Your task to perform on an android device: Go to Android settings Image 0: 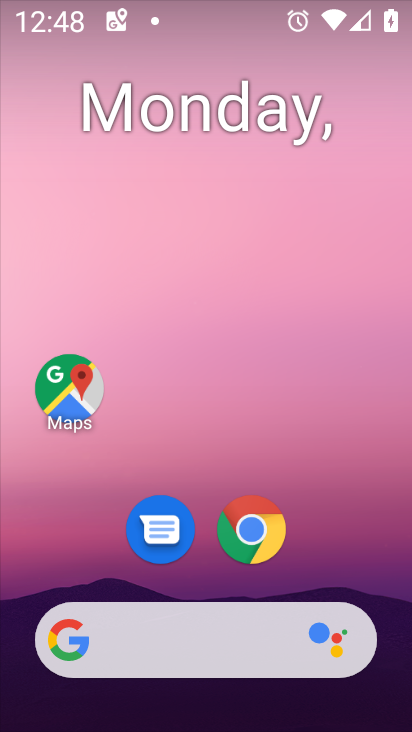
Step 0: click (198, 160)
Your task to perform on an android device: Go to Android settings Image 1: 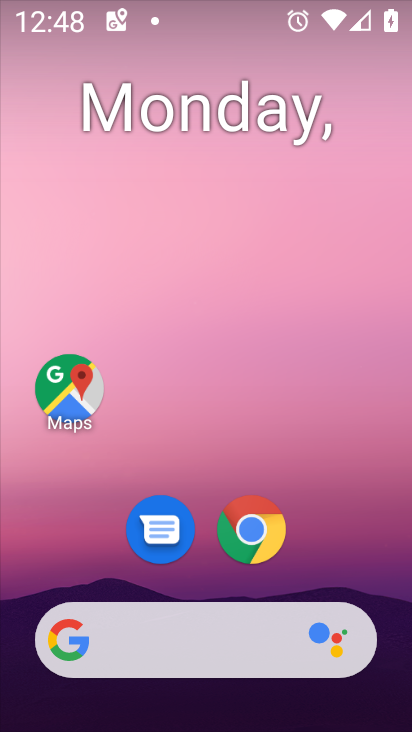
Step 1: drag from (223, 643) to (235, 58)
Your task to perform on an android device: Go to Android settings Image 2: 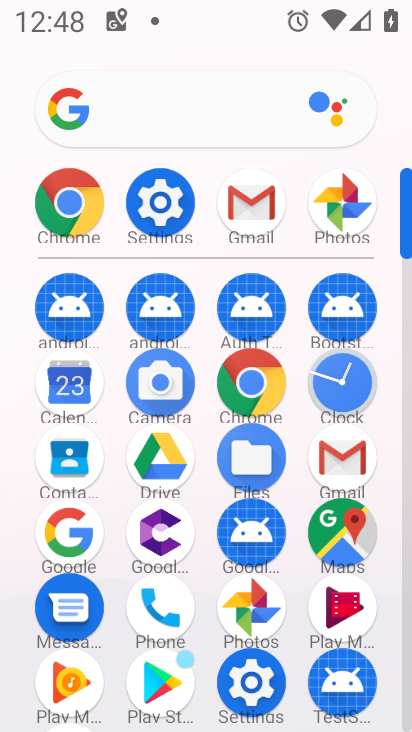
Step 2: click (167, 227)
Your task to perform on an android device: Go to Android settings Image 3: 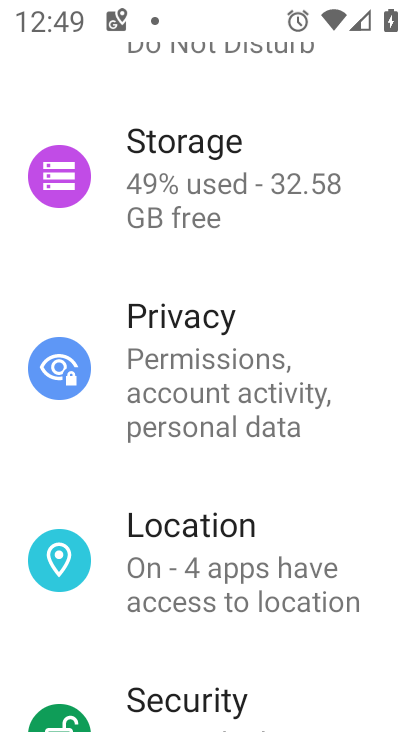
Step 3: drag from (248, 635) to (188, 0)
Your task to perform on an android device: Go to Android settings Image 4: 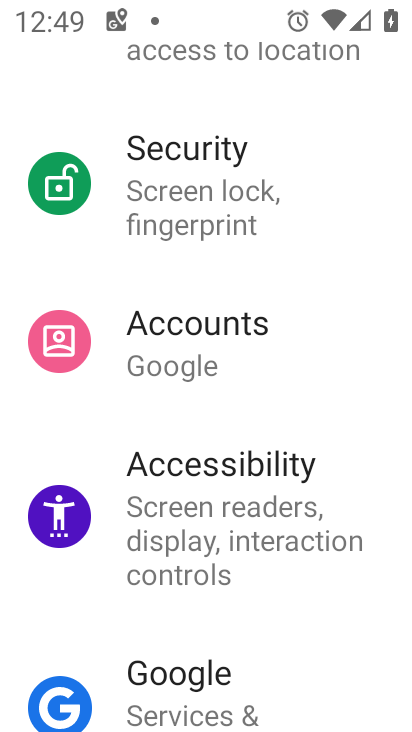
Step 4: drag from (257, 601) to (46, 6)
Your task to perform on an android device: Go to Android settings Image 5: 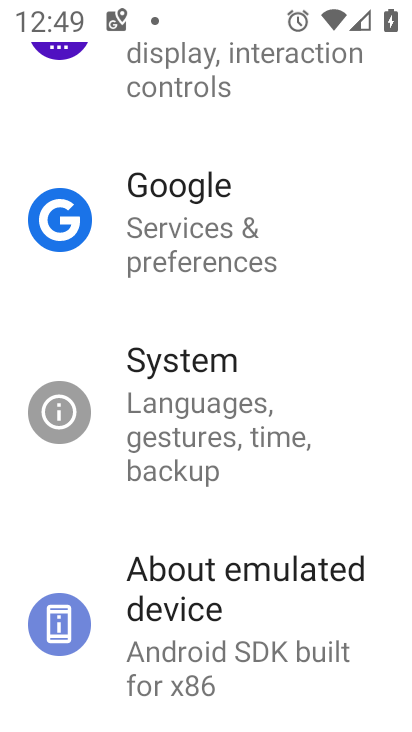
Step 5: click (227, 576)
Your task to perform on an android device: Go to Android settings Image 6: 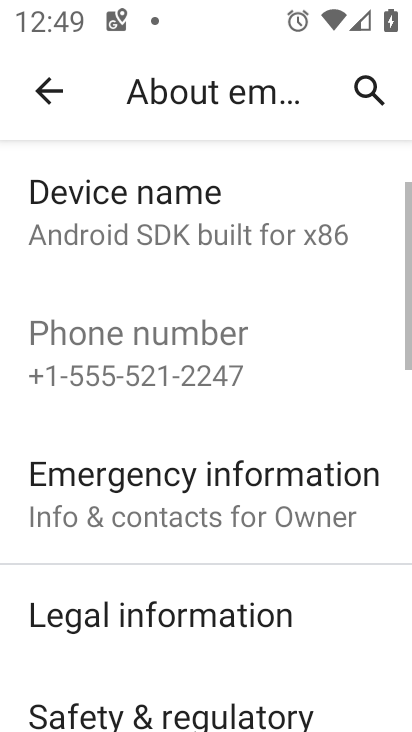
Step 6: task complete